Your task to perform on an android device: Open privacy settings Image 0: 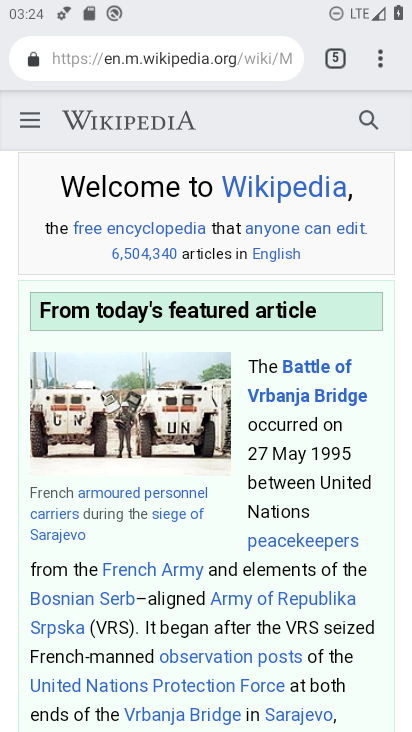
Step 0: press home button
Your task to perform on an android device: Open privacy settings Image 1: 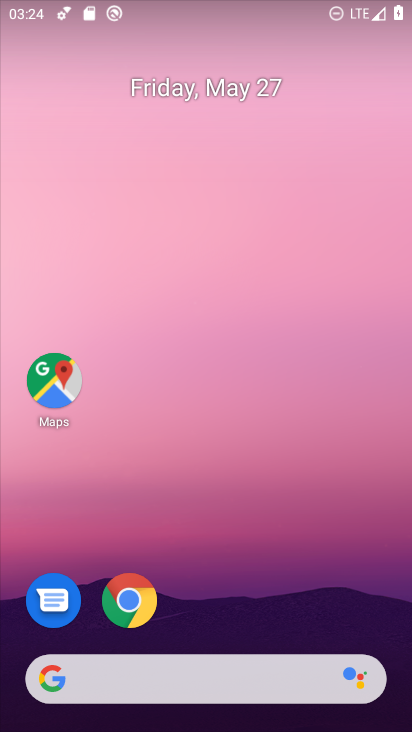
Step 1: drag from (260, 729) to (221, 128)
Your task to perform on an android device: Open privacy settings Image 2: 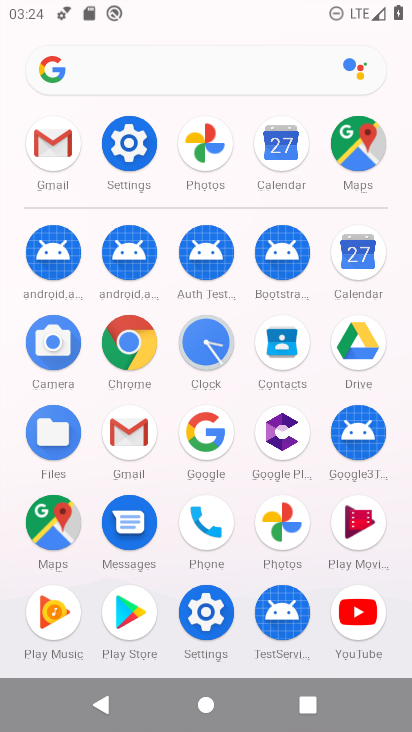
Step 2: click (127, 138)
Your task to perform on an android device: Open privacy settings Image 3: 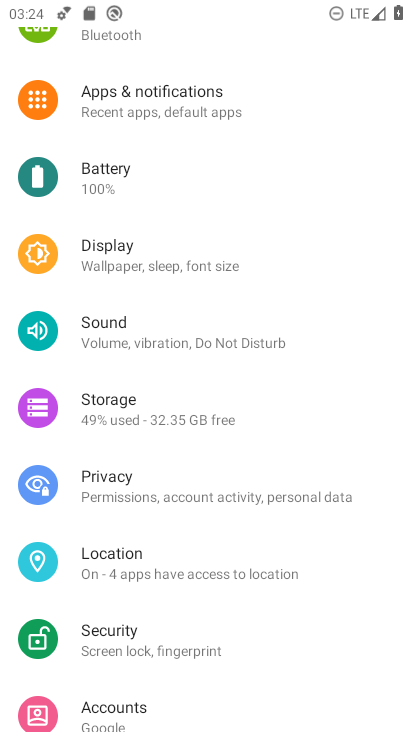
Step 3: click (112, 480)
Your task to perform on an android device: Open privacy settings Image 4: 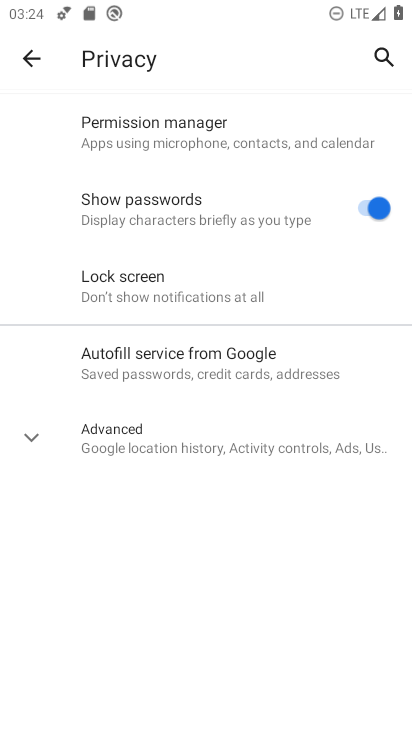
Step 4: task complete